Your task to perform on an android device: Open the stopwatch Image 0: 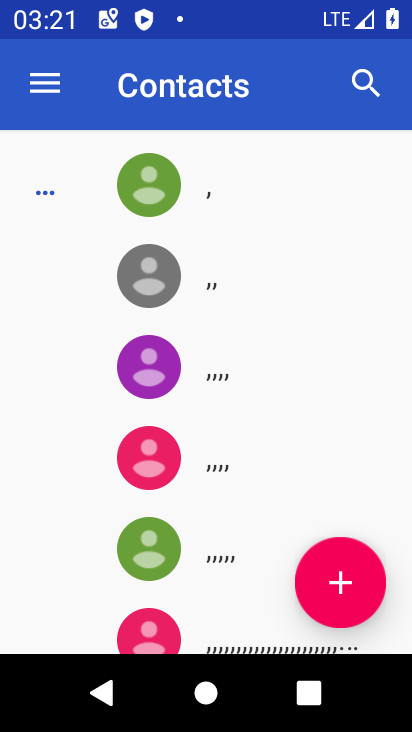
Step 0: press home button
Your task to perform on an android device: Open the stopwatch Image 1: 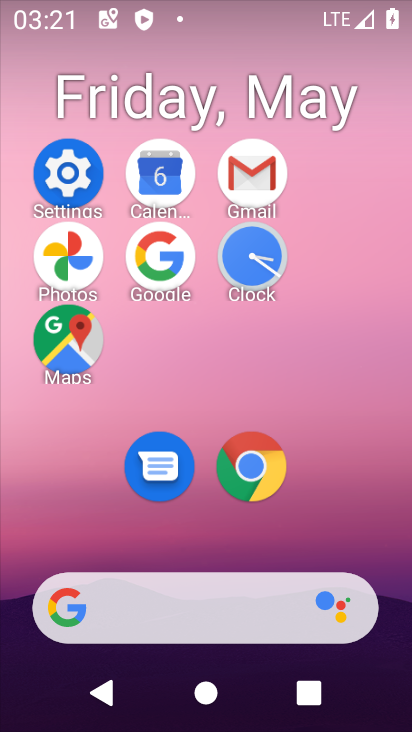
Step 1: click (249, 272)
Your task to perform on an android device: Open the stopwatch Image 2: 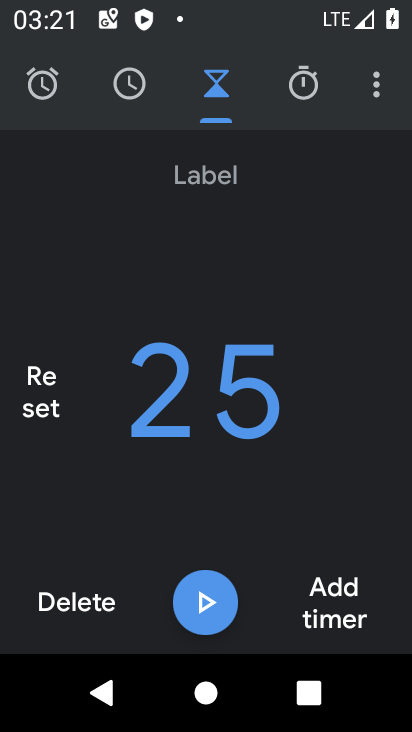
Step 2: click (298, 78)
Your task to perform on an android device: Open the stopwatch Image 3: 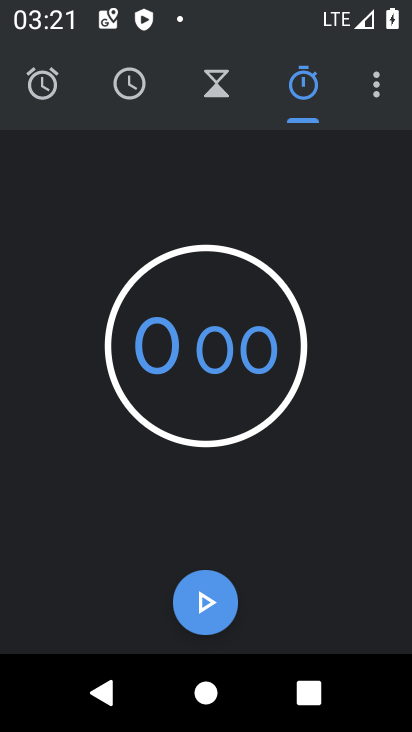
Step 3: task complete